Your task to perform on an android device: Open accessibility settings Image 0: 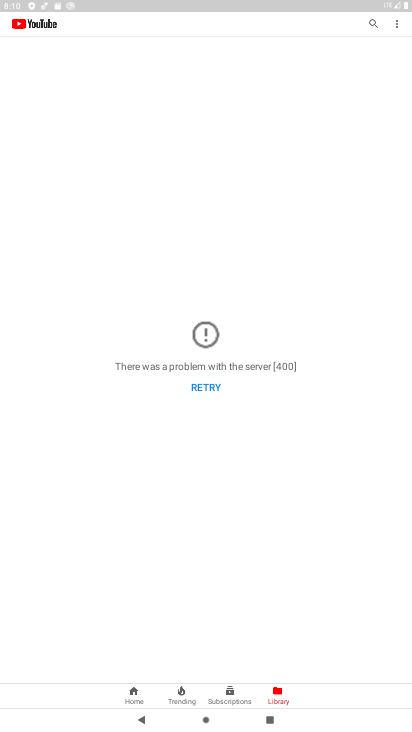
Step 0: press home button
Your task to perform on an android device: Open accessibility settings Image 1: 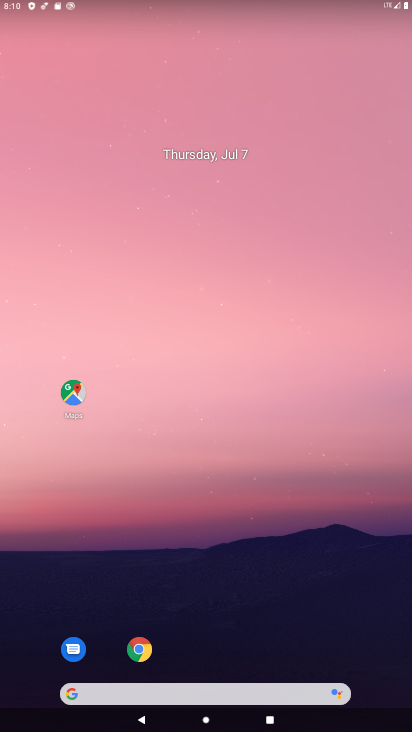
Step 1: drag from (211, 611) to (115, 84)
Your task to perform on an android device: Open accessibility settings Image 2: 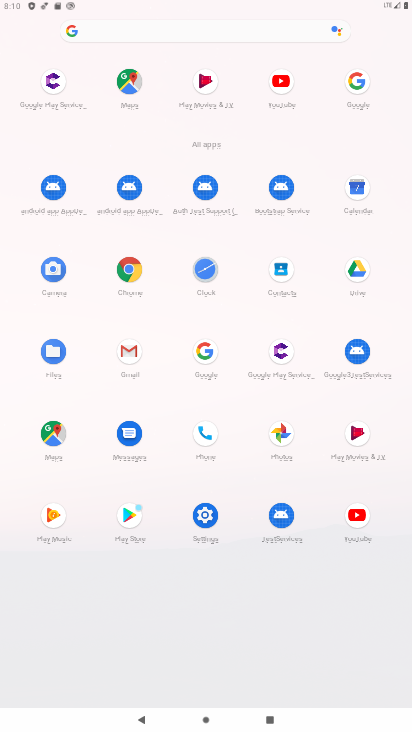
Step 2: click (201, 518)
Your task to perform on an android device: Open accessibility settings Image 3: 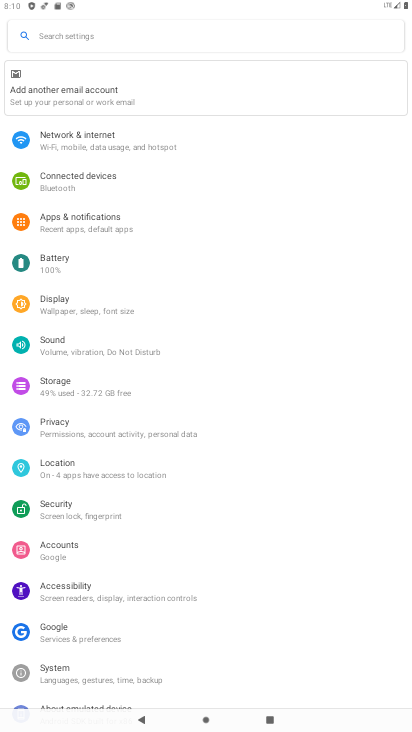
Step 3: click (75, 581)
Your task to perform on an android device: Open accessibility settings Image 4: 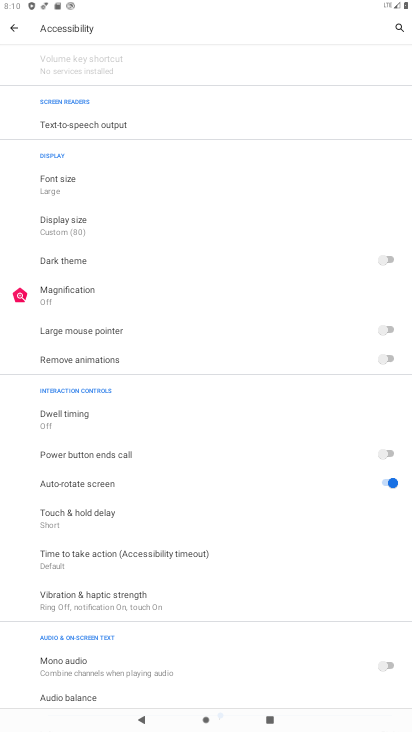
Step 4: task complete